Your task to perform on an android device: delete a single message in the gmail app Image 0: 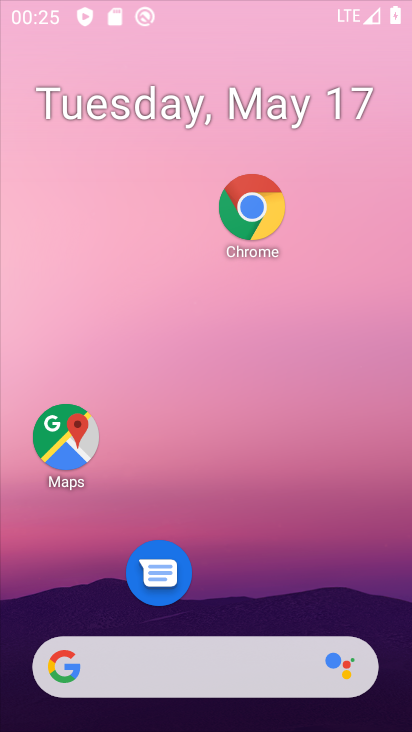
Step 0: drag from (249, 681) to (299, 5)
Your task to perform on an android device: delete a single message in the gmail app Image 1: 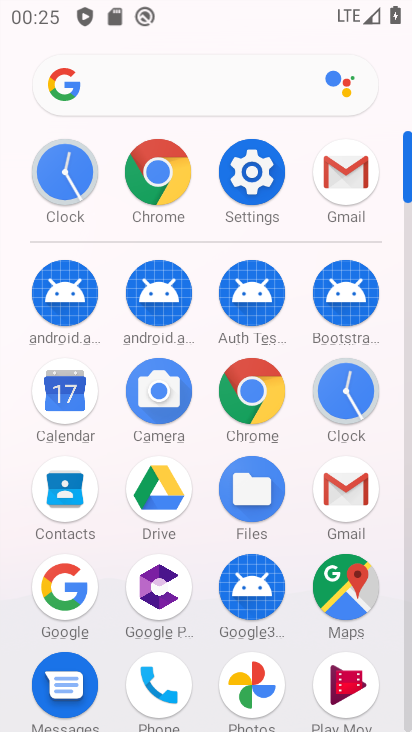
Step 1: click (344, 481)
Your task to perform on an android device: delete a single message in the gmail app Image 2: 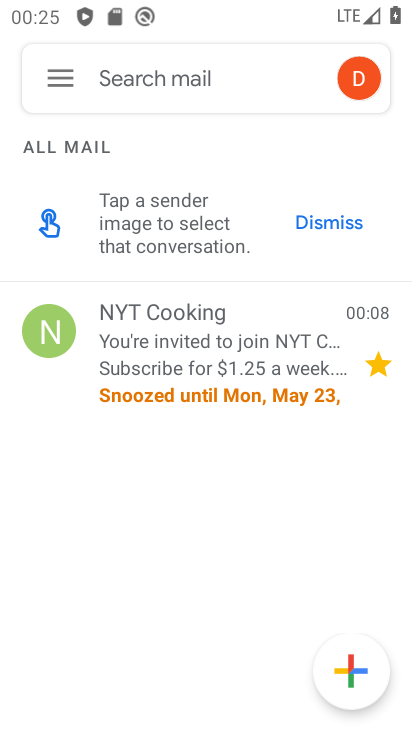
Step 2: click (64, 68)
Your task to perform on an android device: delete a single message in the gmail app Image 3: 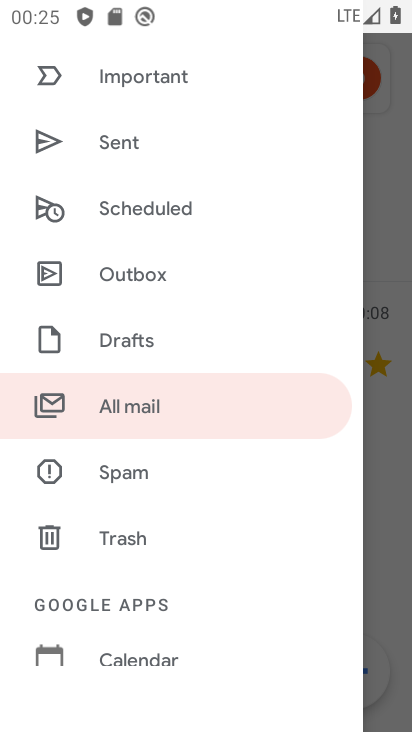
Step 3: click (400, 245)
Your task to perform on an android device: delete a single message in the gmail app Image 4: 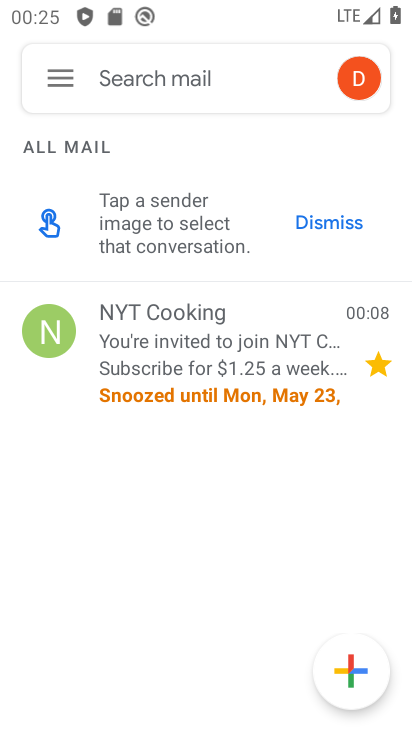
Step 4: click (297, 359)
Your task to perform on an android device: delete a single message in the gmail app Image 5: 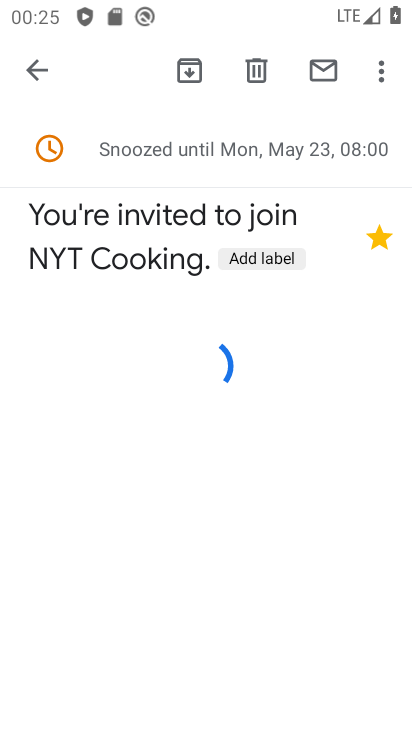
Step 5: click (380, 69)
Your task to perform on an android device: delete a single message in the gmail app Image 6: 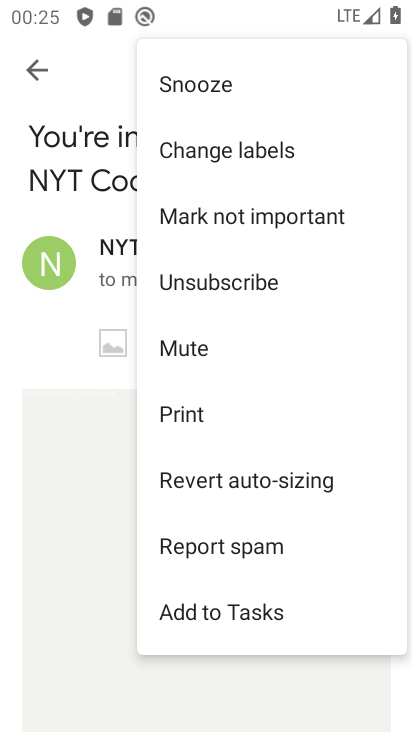
Step 6: drag from (256, 603) to (228, 227)
Your task to perform on an android device: delete a single message in the gmail app Image 7: 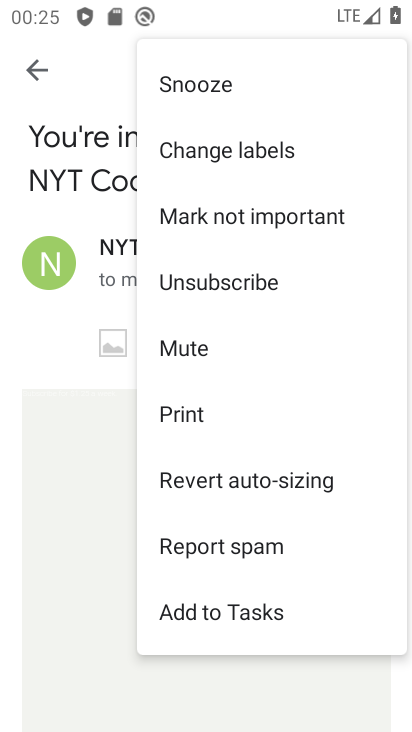
Step 7: click (62, 502)
Your task to perform on an android device: delete a single message in the gmail app Image 8: 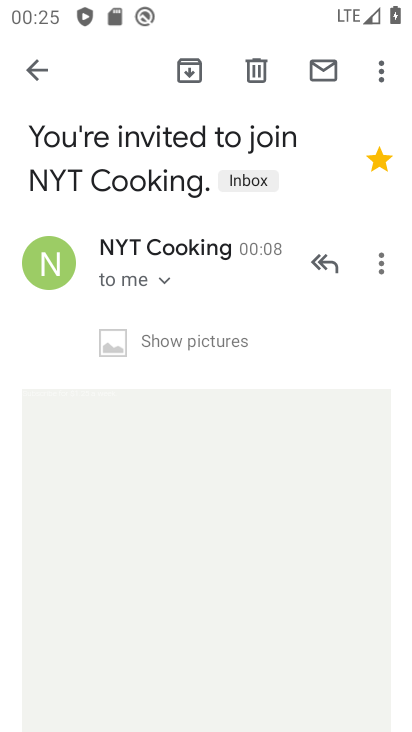
Step 8: click (252, 74)
Your task to perform on an android device: delete a single message in the gmail app Image 9: 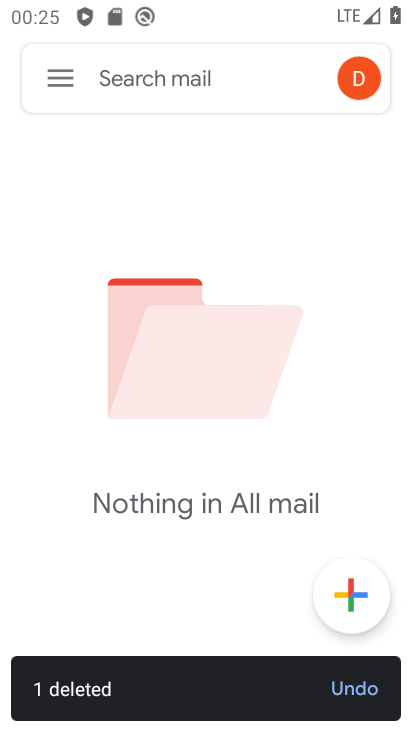
Step 9: task complete